Your task to perform on an android device: Open the web browser Image 0: 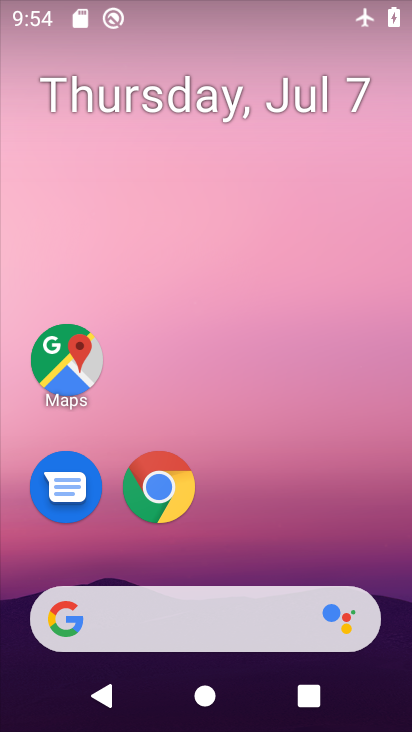
Step 0: drag from (341, 432) to (367, 91)
Your task to perform on an android device: Open the web browser Image 1: 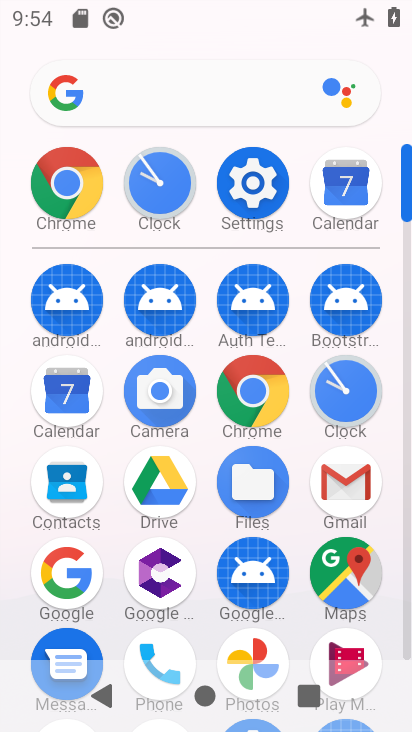
Step 1: click (252, 386)
Your task to perform on an android device: Open the web browser Image 2: 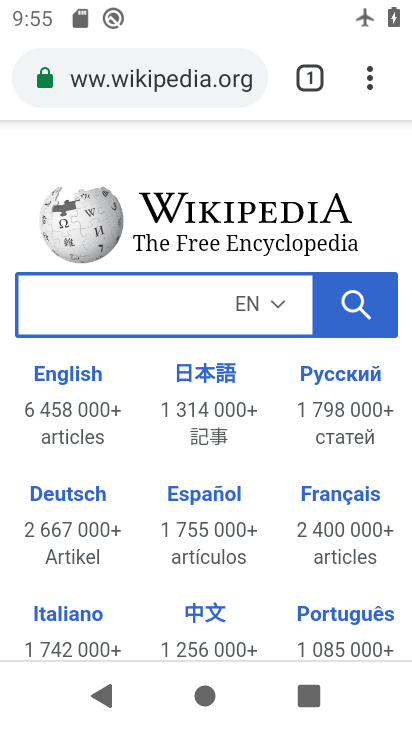
Step 2: task complete